Your task to perform on an android device: check out phone information Image 0: 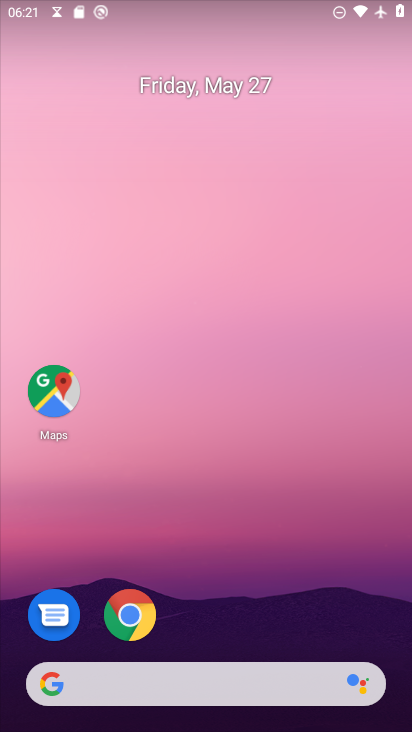
Step 0: drag from (274, 463) to (206, 0)
Your task to perform on an android device: check out phone information Image 1: 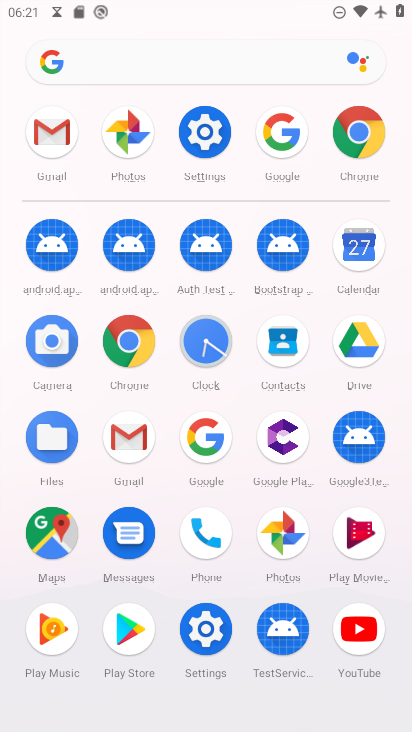
Step 1: click (216, 149)
Your task to perform on an android device: check out phone information Image 2: 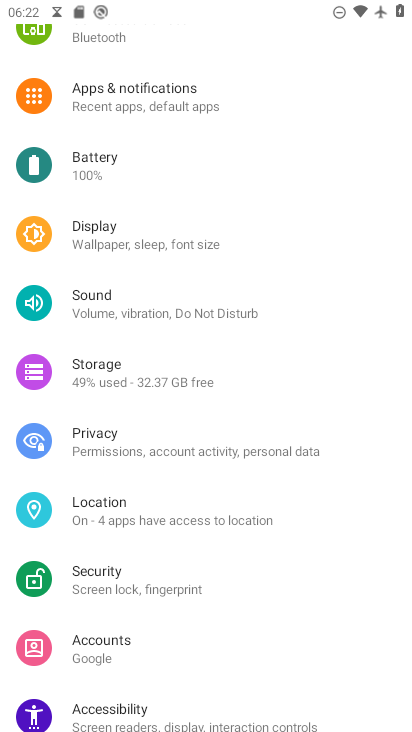
Step 2: drag from (216, 684) to (212, 88)
Your task to perform on an android device: check out phone information Image 3: 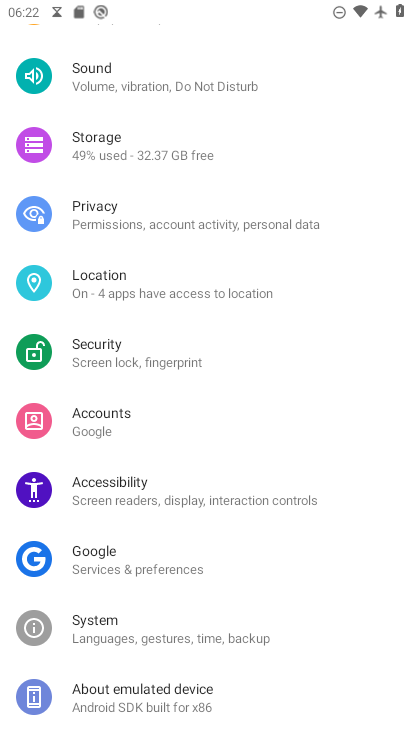
Step 3: click (169, 690)
Your task to perform on an android device: check out phone information Image 4: 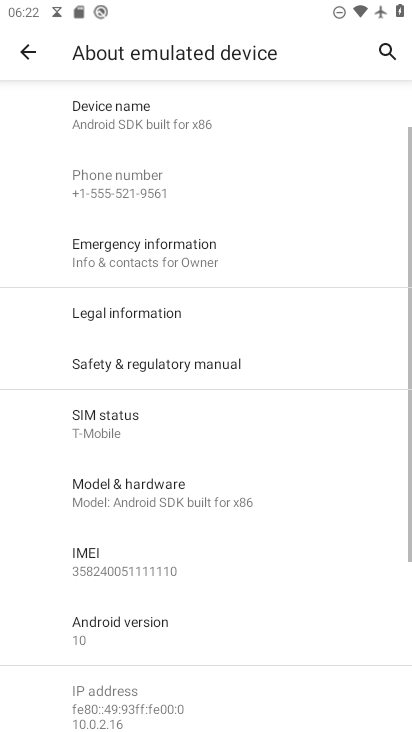
Step 4: click (161, 628)
Your task to perform on an android device: check out phone information Image 5: 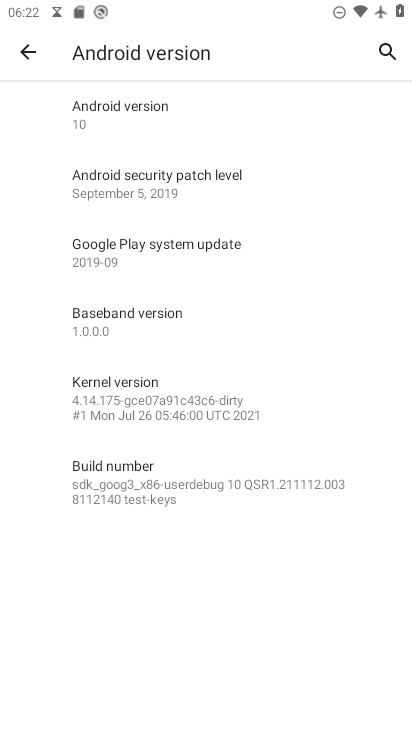
Step 5: task complete